Your task to perform on an android device: Add logitech g903 to the cart on target, then select checkout. Image 0: 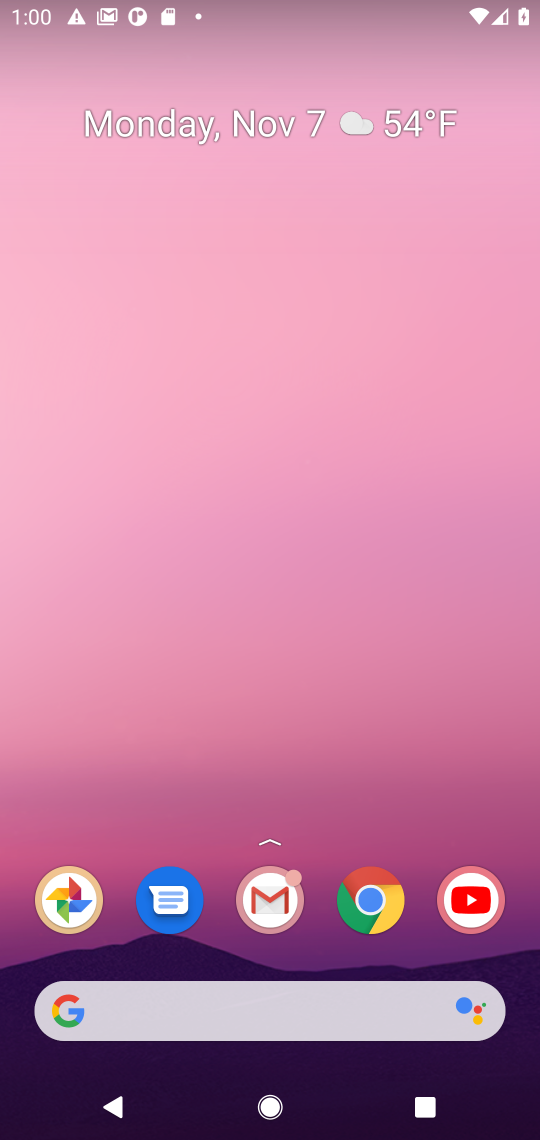
Step 0: click (337, 1022)
Your task to perform on an android device: Add logitech g903 to the cart on target, then select checkout. Image 1: 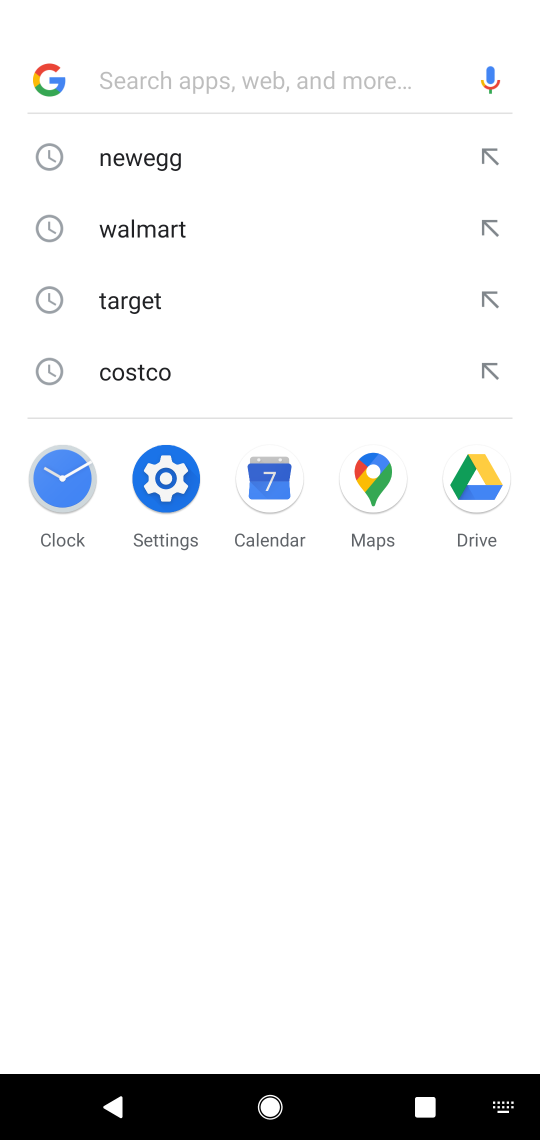
Step 1: click (143, 312)
Your task to perform on an android device: Add logitech g903 to the cart on target, then select checkout. Image 2: 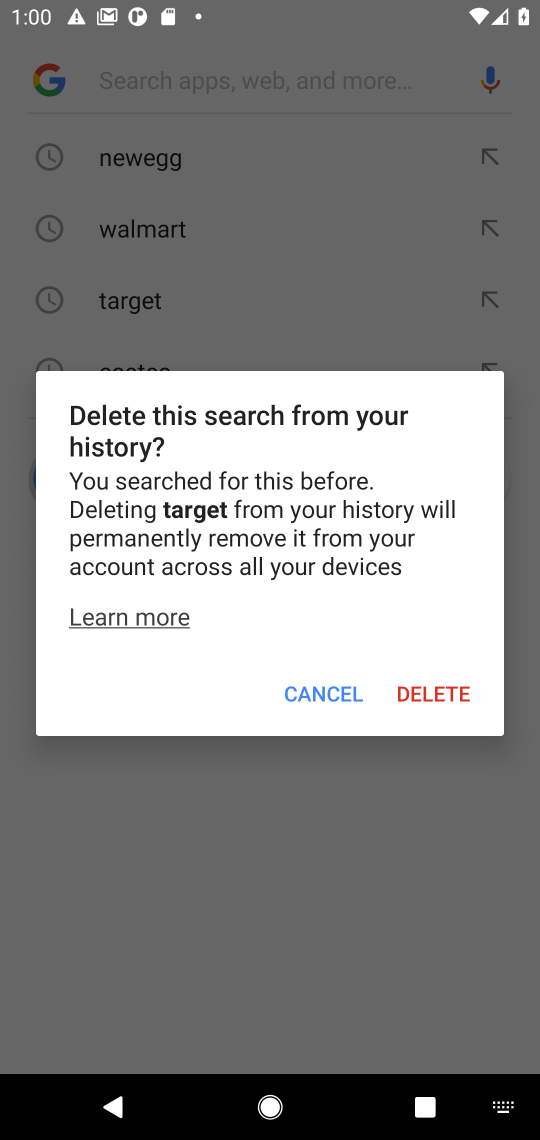
Step 2: click (337, 719)
Your task to perform on an android device: Add logitech g903 to the cart on target, then select checkout. Image 3: 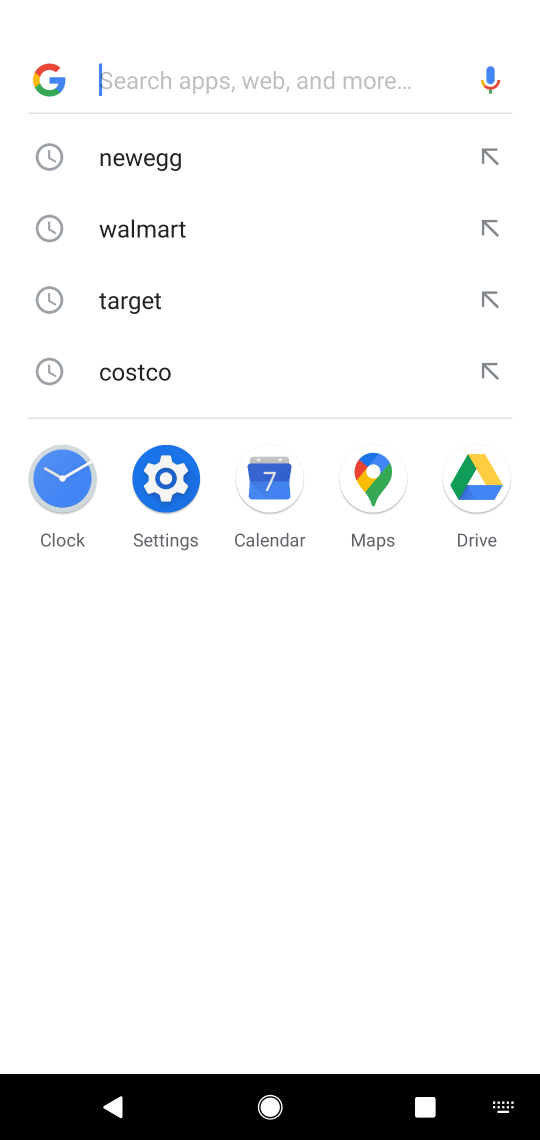
Step 3: click (144, 297)
Your task to perform on an android device: Add logitech g903 to the cart on target, then select checkout. Image 4: 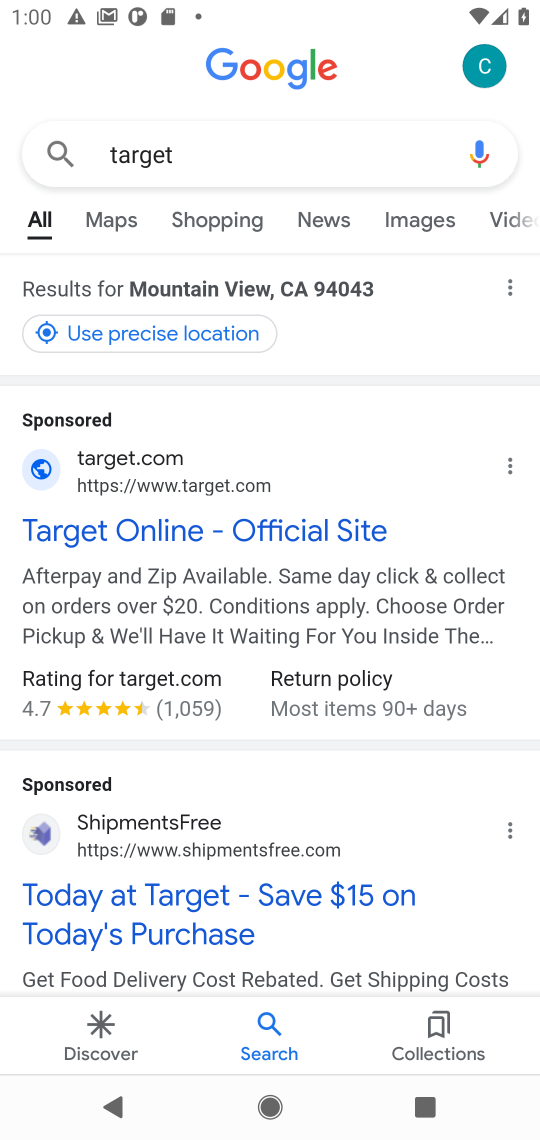
Step 4: click (129, 534)
Your task to perform on an android device: Add logitech g903 to the cart on target, then select checkout. Image 5: 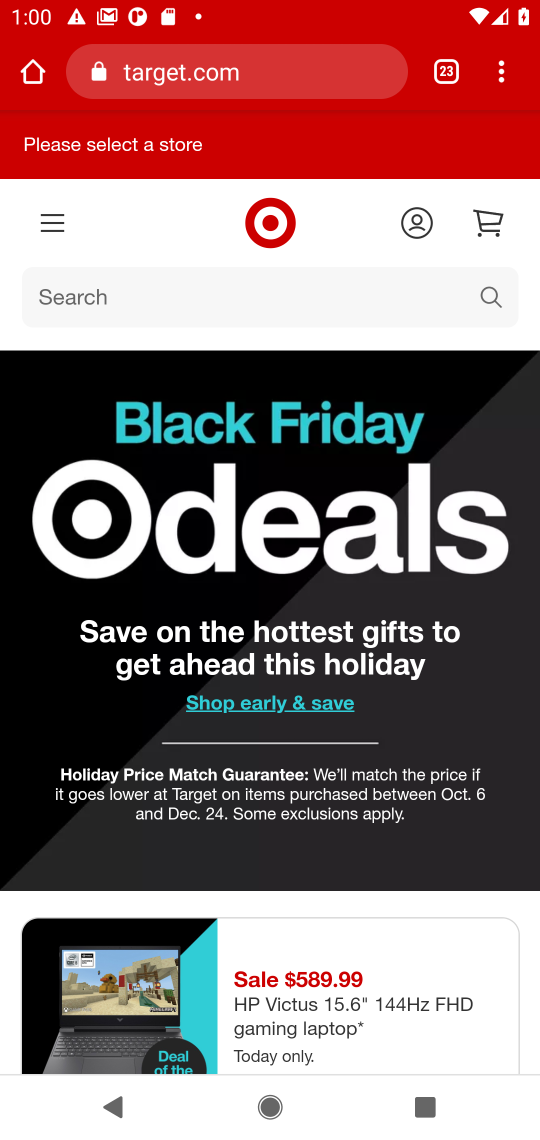
Step 5: task complete